Your task to perform on an android device: Open the calendar app, open the side menu, and click the "Day" option Image 0: 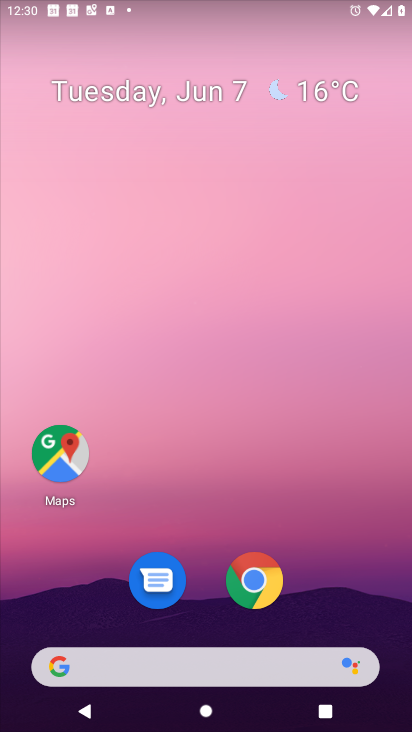
Step 0: drag from (332, 502) to (281, 14)
Your task to perform on an android device: Open the calendar app, open the side menu, and click the "Day" option Image 1: 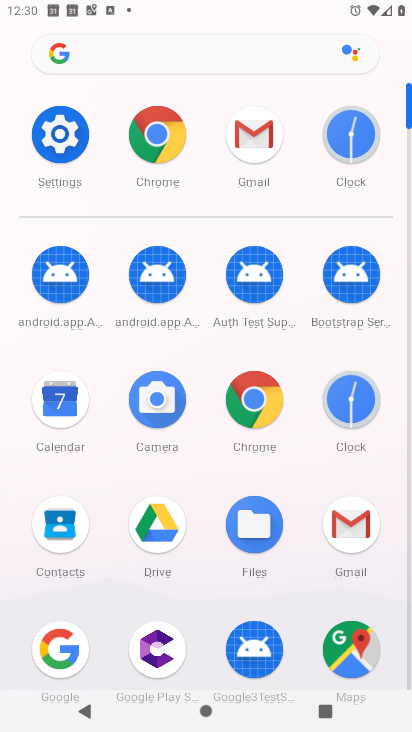
Step 1: click (46, 413)
Your task to perform on an android device: Open the calendar app, open the side menu, and click the "Day" option Image 2: 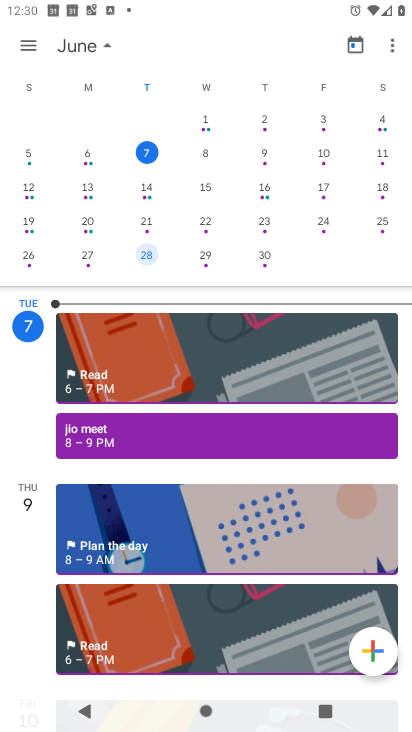
Step 2: click (27, 44)
Your task to perform on an android device: Open the calendar app, open the side menu, and click the "Day" option Image 3: 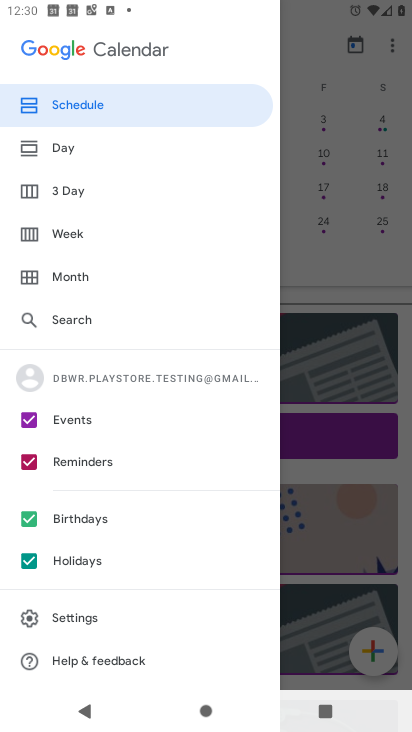
Step 3: click (49, 149)
Your task to perform on an android device: Open the calendar app, open the side menu, and click the "Day" option Image 4: 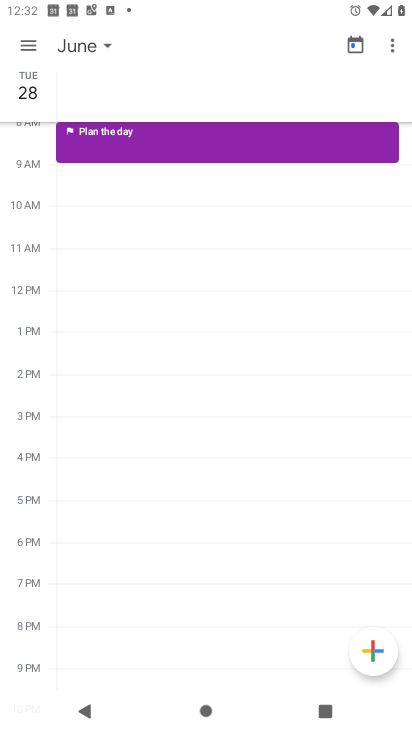
Step 4: click (36, 45)
Your task to perform on an android device: Open the calendar app, open the side menu, and click the "Day" option Image 5: 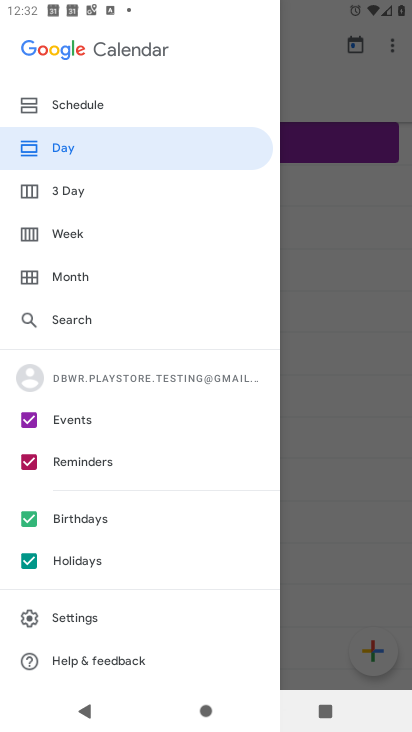
Step 5: task complete